Your task to perform on an android device: Open Reddit.com Image 0: 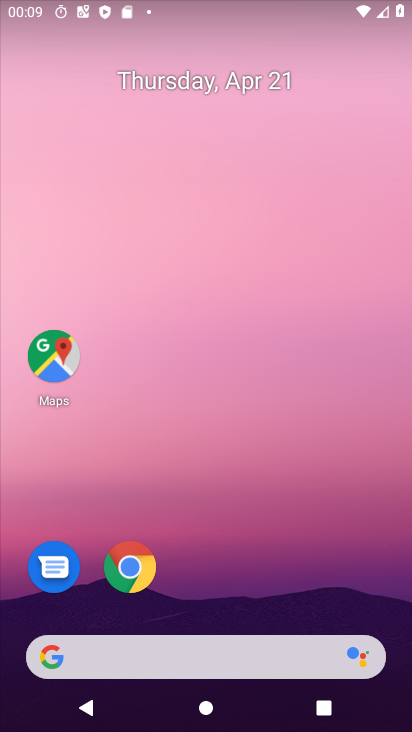
Step 0: click (261, 318)
Your task to perform on an android device: Open Reddit.com Image 1: 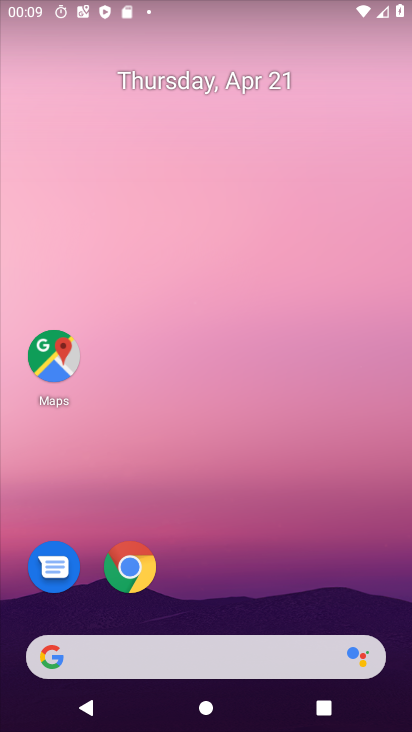
Step 1: drag from (231, 527) to (230, 299)
Your task to perform on an android device: Open Reddit.com Image 2: 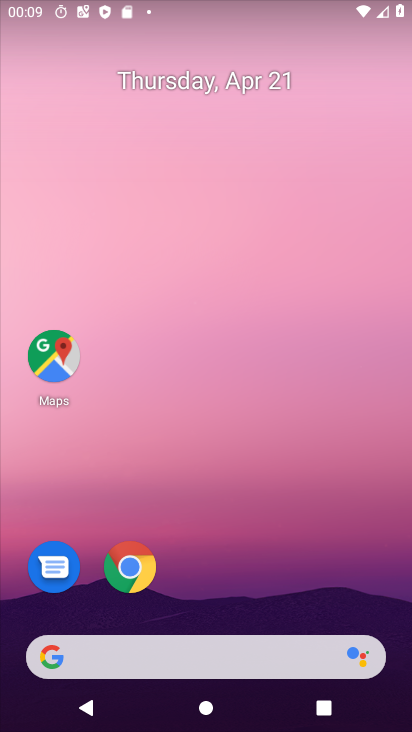
Step 2: drag from (209, 587) to (254, 225)
Your task to perform on an android device: Open Reddit.com Image 3: 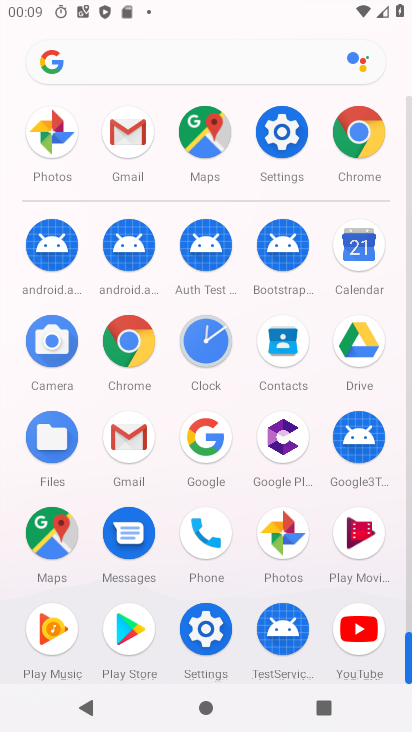
Step 3: click (127, 332)
Your task to perform on an android device: Open Reddit.com Image 4: 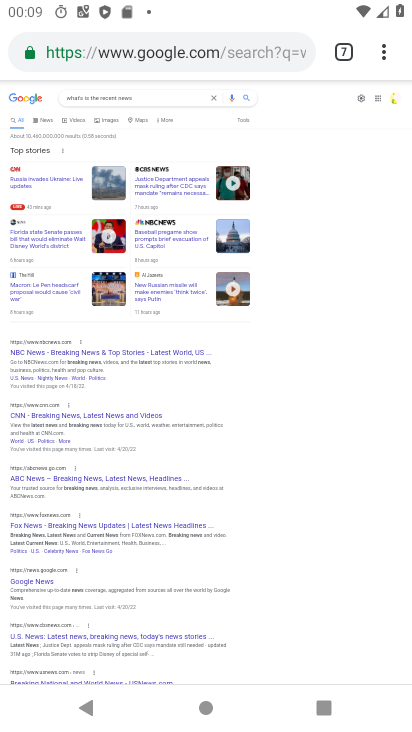
Step 4: click (373, 58)
Your task to perform on an android device: Open Reddit.com Image 5: 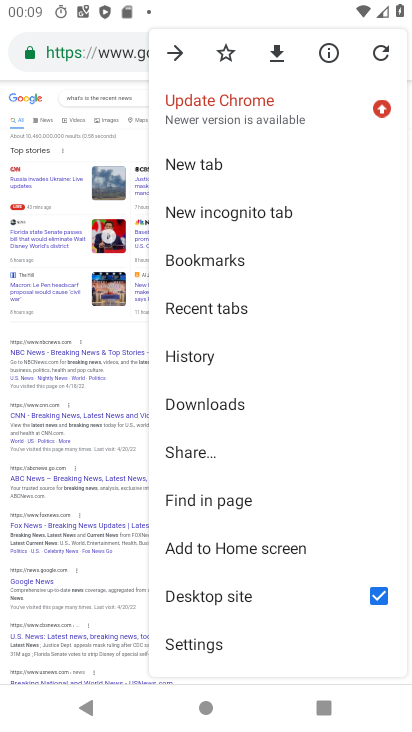
Step 5: click (227, 162)
Your task to perform on an android device: Open Reddit.com Image 6: 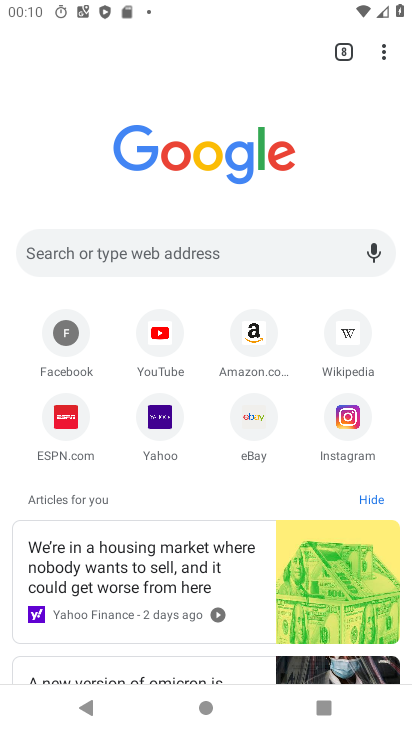
Step 6: click (248, 245)
Your task to perform on an android device: Open Reddit.com Image 7: 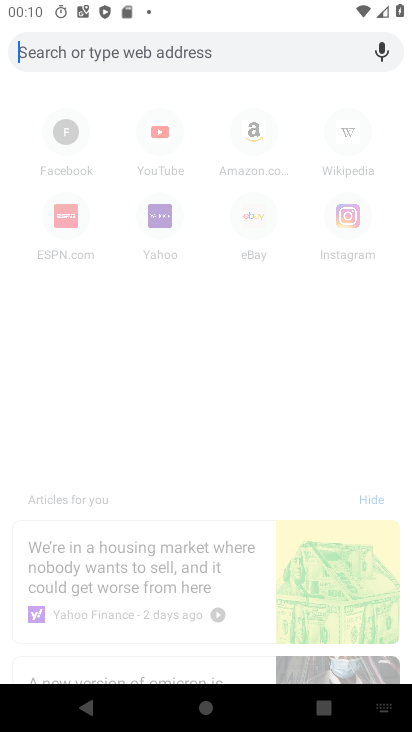
Step 7: type " Reddit.com"
Your task to perform on an android device: Open Reddit.com Image 8: 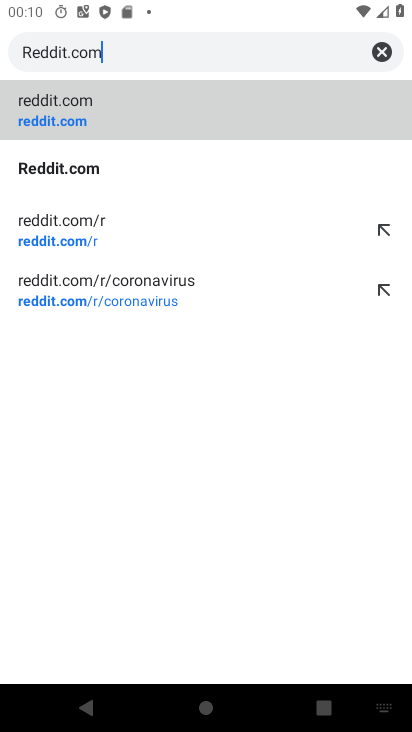
Step 8: click (136, 119)
Your task to perform on an android device: Open Reddit.com Image 9: 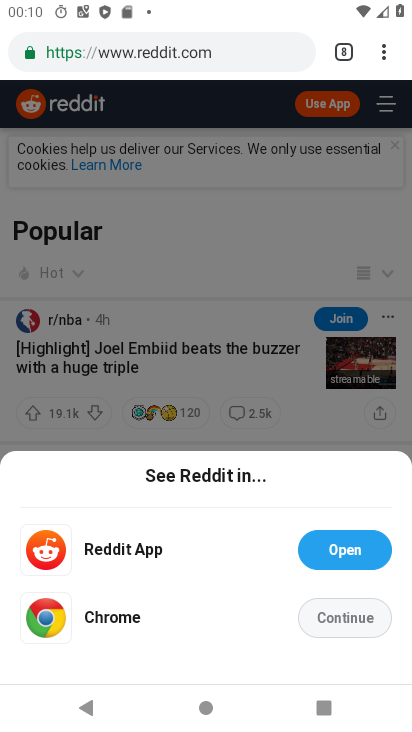
Step 9: task complete